Your task to perform on an android device: toggle location history Image 0: 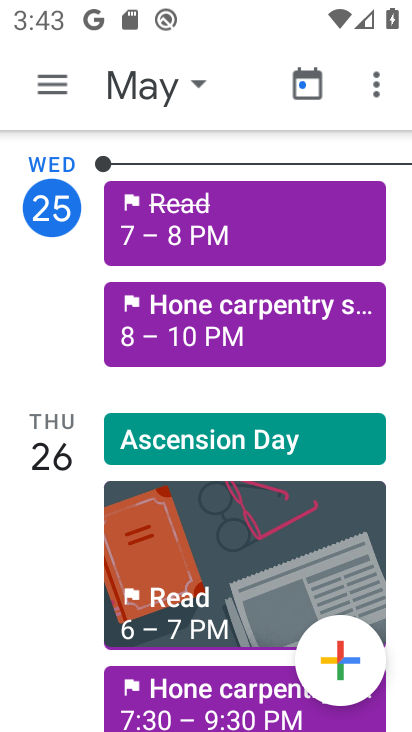
Step 0: press home button
Your task to perform on an android device: toggle location history Image 1: 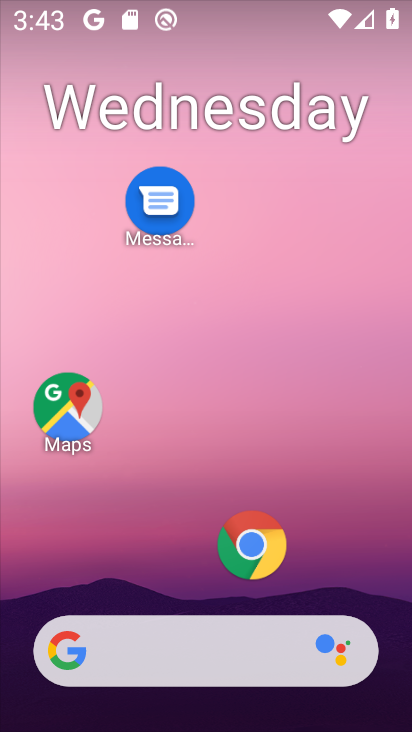
Step 1: drag from (328, 564) to (280, 198)
Your task to perform on an android device: toggle location history Image 2: 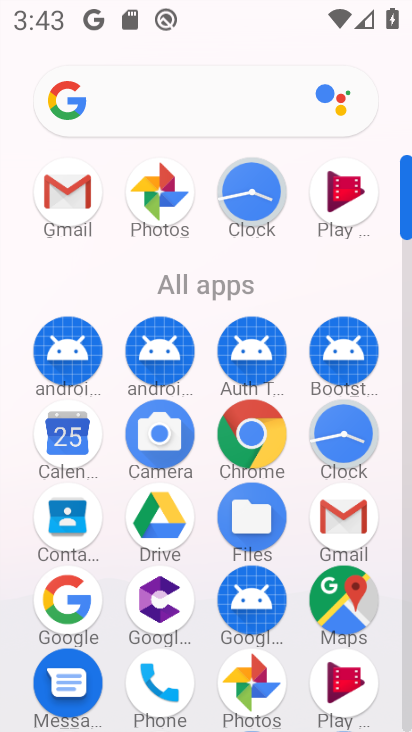
Step 2: drag from (194, 639) to (184, 407)
Your task to perform on an android device: toggle location history Image 3: 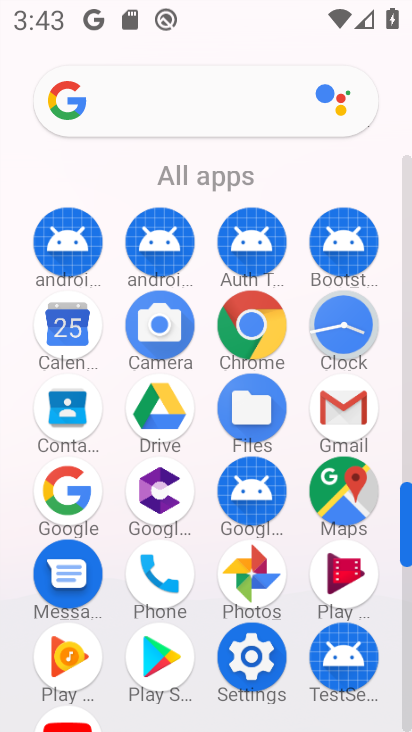
Step 3: click (257, 676)
Your task to perform on an android device: toggle location history Image 4: 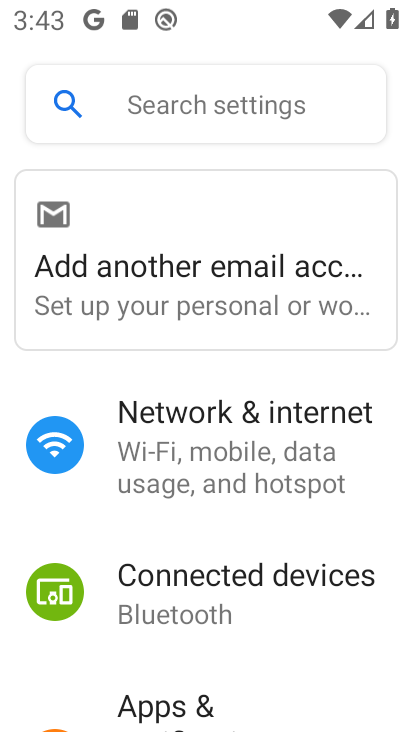
Step 4: drag from (291, 600) to (263, 248)
Your task to perform on an android device: toggle location history Image 5: 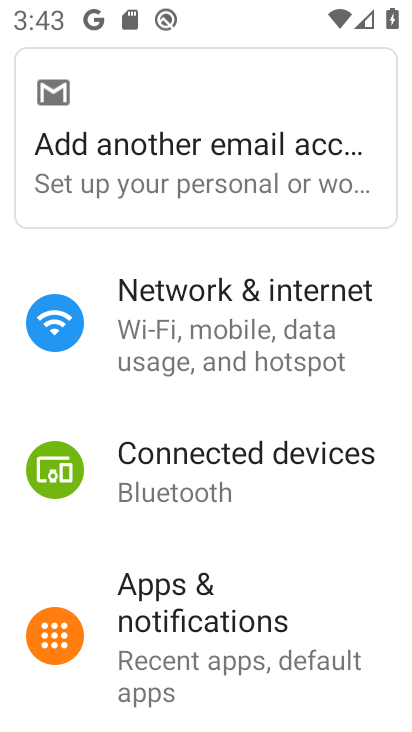
Step 5: drag from (251, 664) to (240, 219)
Your task to perform on an android device: toggle location history Image 6: 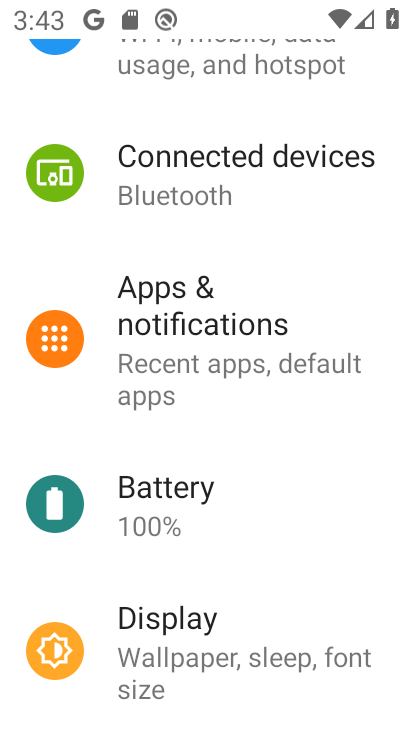
Step 6: drag from (258, 549) to (243, 303)
Your task to perform on an android device: toggle location history Image 7: 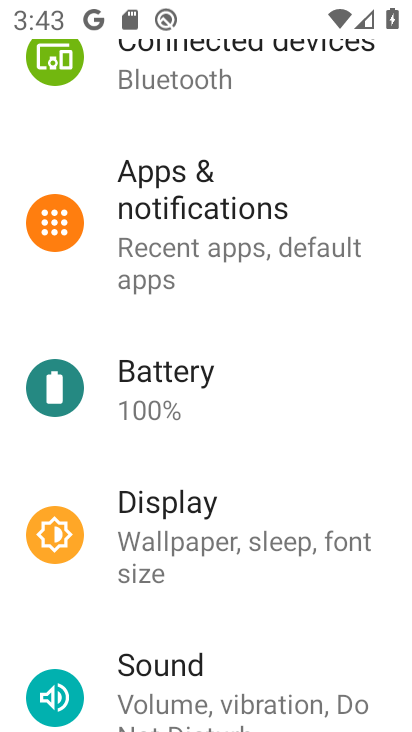
Step 7: drag from (273, 661) to (221, 336)
Your task to perform on an android device: toggle location history Image 8: 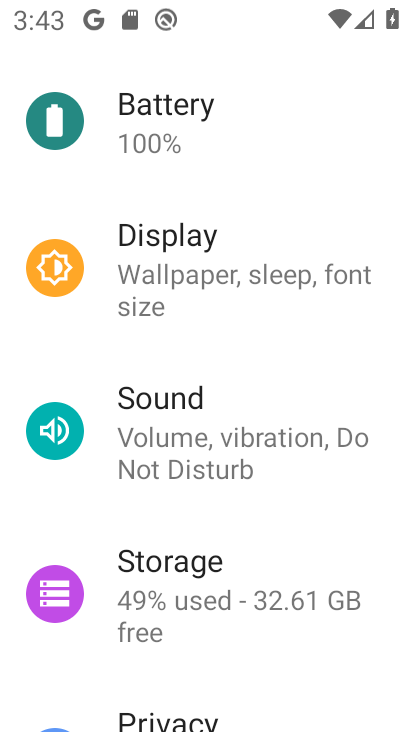
Step 8: drag from (274, 619) to (257, 231)
Your task to perform on an android device: toggle location history Image 9: 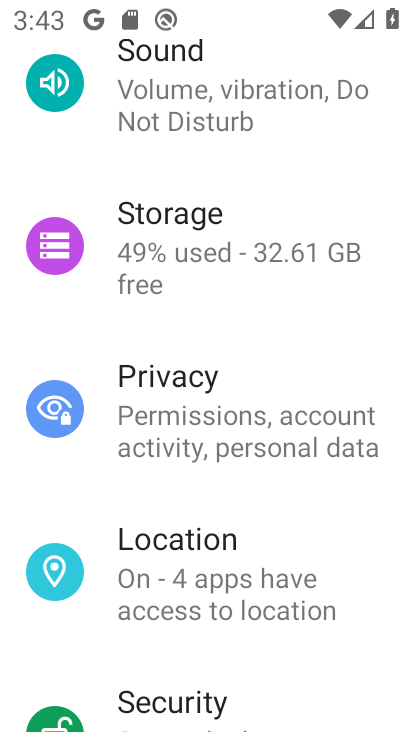
Step 9: click (208, 598)
Your task to perform on an android device: toggle location history Image 10: 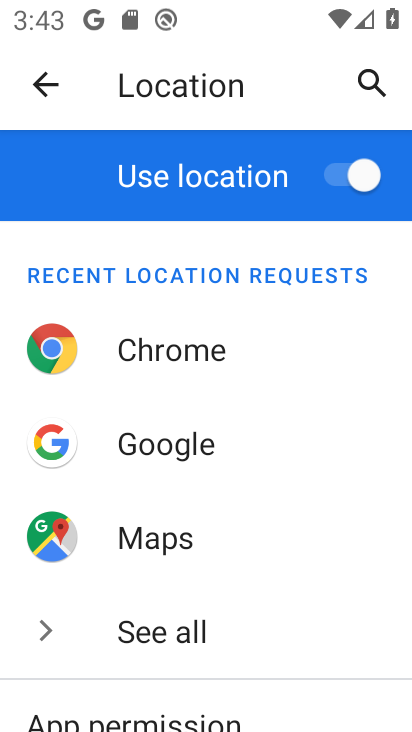
Step 10: drag from (320, 665) to (268, 300)
Your task to perform on an android device: toggle location history Image 11: 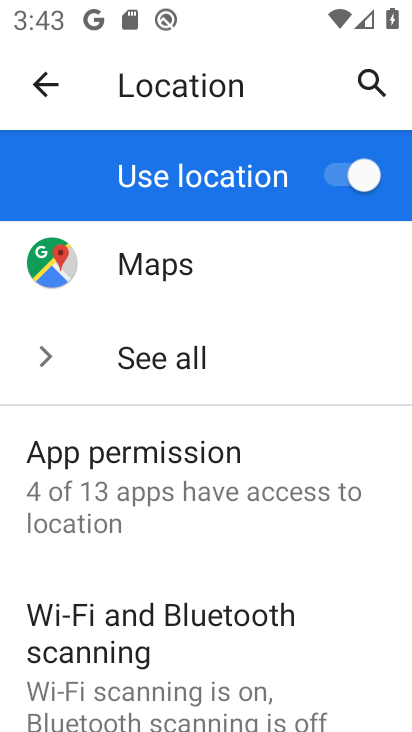
Step 11: drag from (320, 615) to (282, 317)
Your task to perform on an android device: toggle location history Image 12: 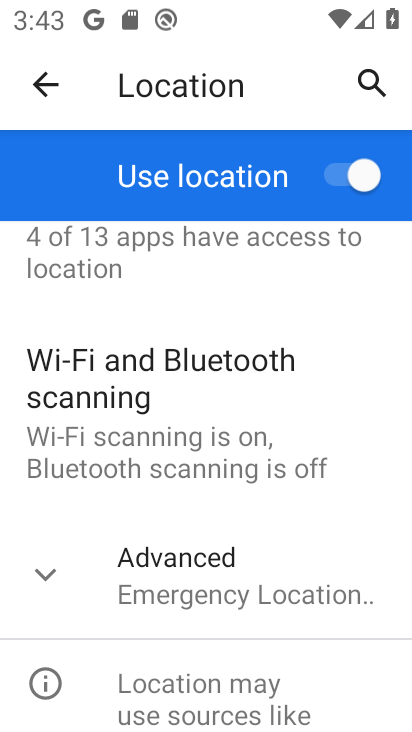
Step 12: click (245, 573)
Your task to perform on an android device: toggle location history Image 13: 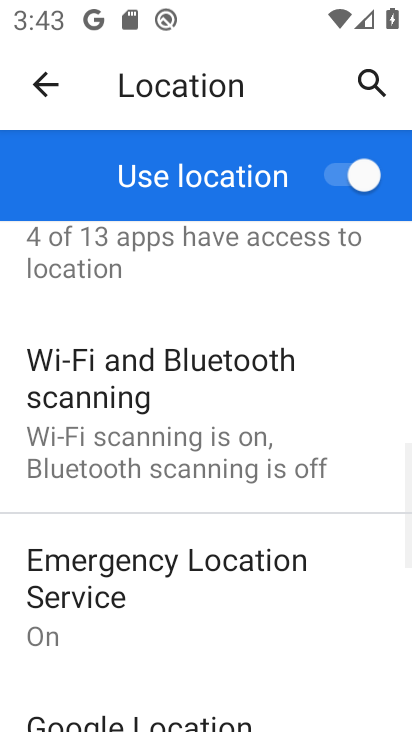
Step 13: drag from (295, 639) to (298, 459)
Your task to perform on an android device: toggle location history Image 14: 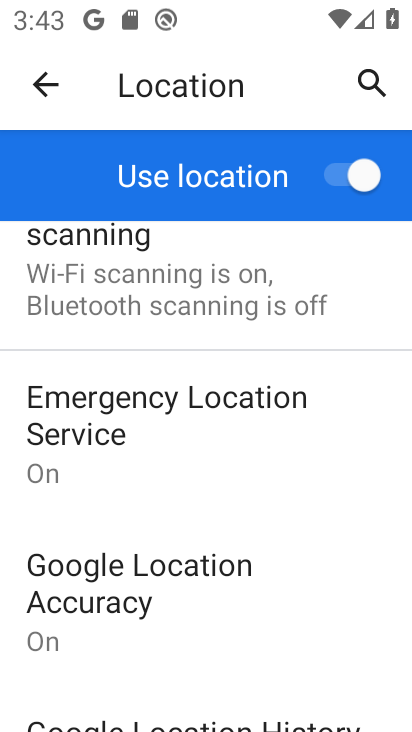
Step 14: drag from (248, 666) to (253, 351)
Your task to perform on an android device: toggle location history Image 15: 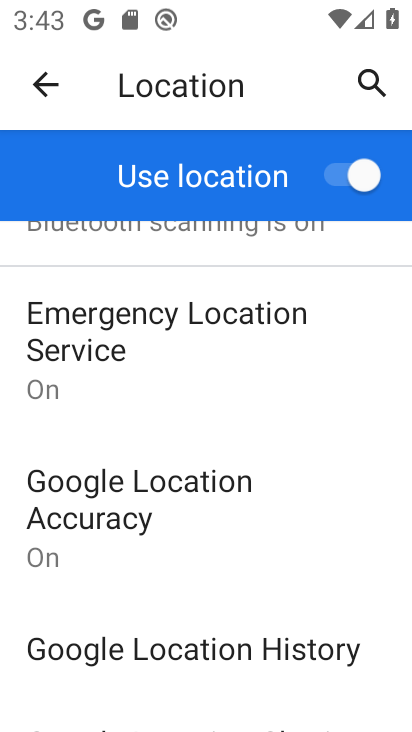
Step 15: click (262, 640)
Your task to perform on an android device: toggle location history Image 16: 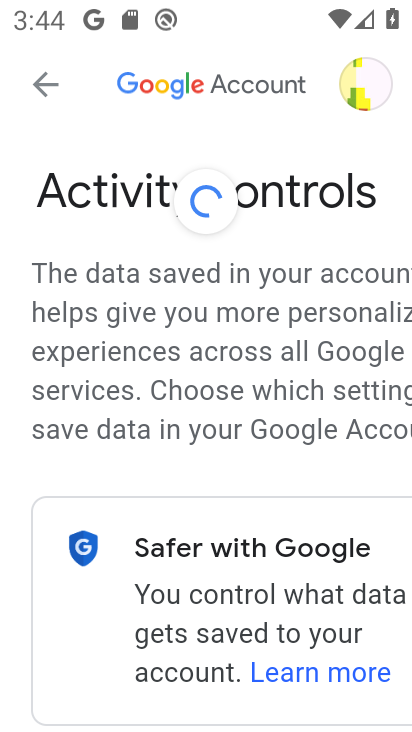
Step 16: drag from (296, 639) to (291, 224)
Your task to perform on an android device: toggle location history Image 17: 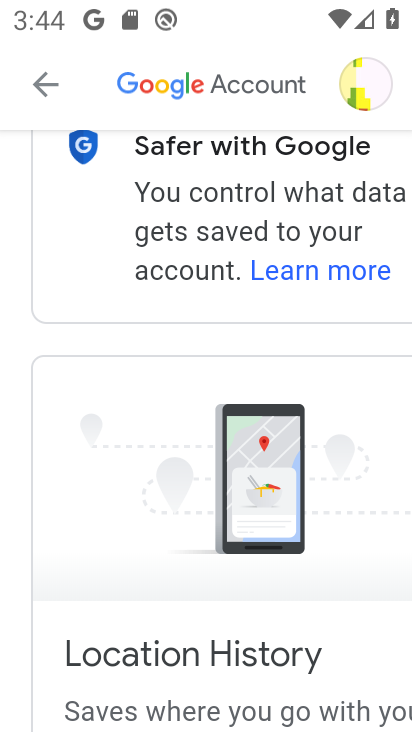
Step 17: drag from (324, 620) to (305, 299)
Your task to perform on an android device: toggle location history Image 18: 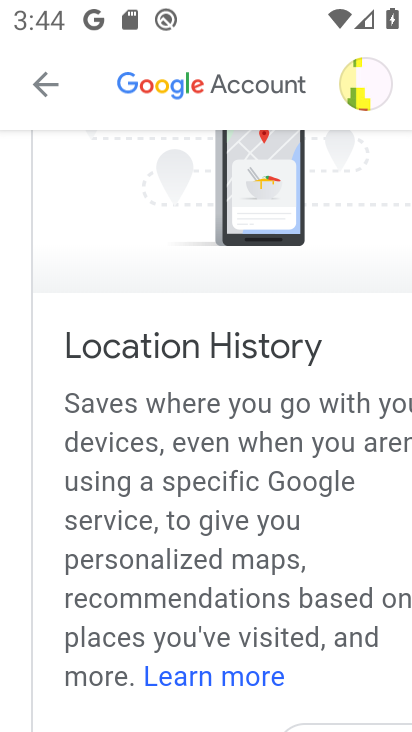
Step 18: drag from (294, 658) to (284, 293)
Your task to perform on an android device: toggle location history Image 19: 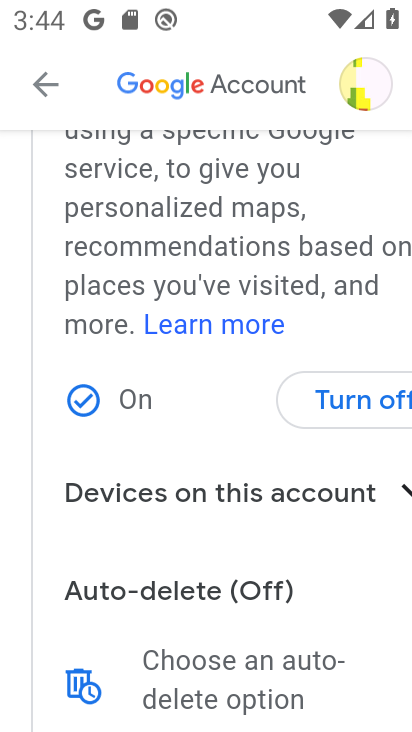
Step 19: click (351, 389)
Your task to perform on an android device: toggle location history Image 20: 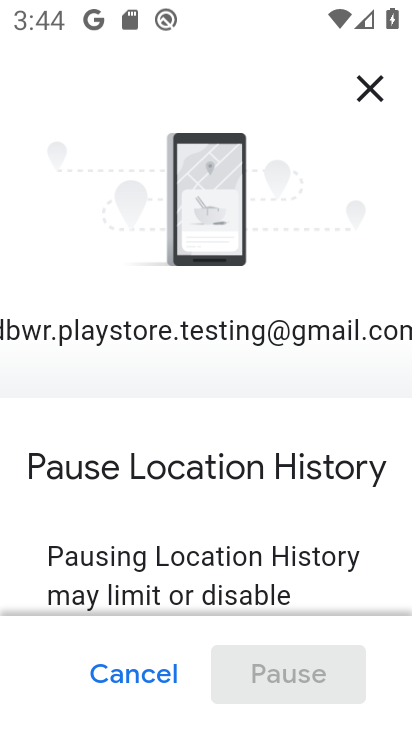
Step 20: drag from (303, 563) to (280, 231)
Your task to perform on an android device: toggle location history Image 21: 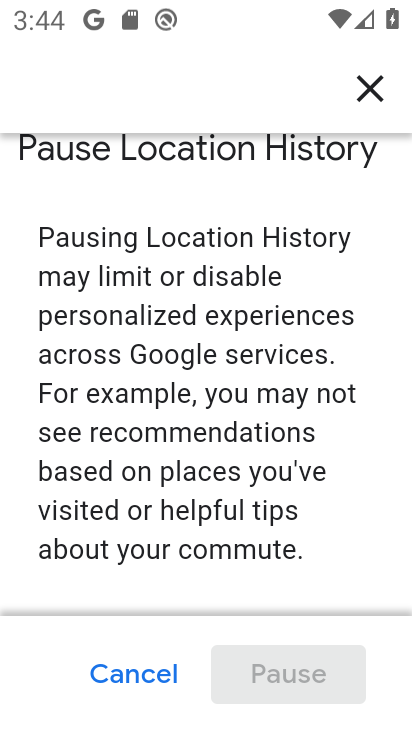
Step 21: drag from (291, 522) to (270, 104)
Your task to perform on an android device: toggle location history Image 22: 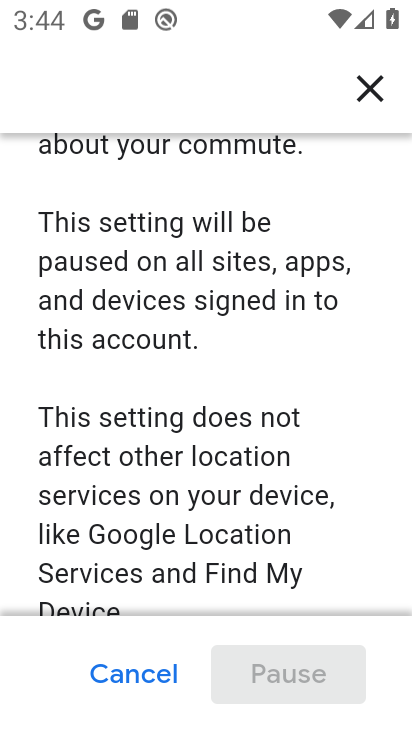
Step 22: drag from (246, 549) to (238, 186)
Your task to perform on an android device: toggle location history Image 23: 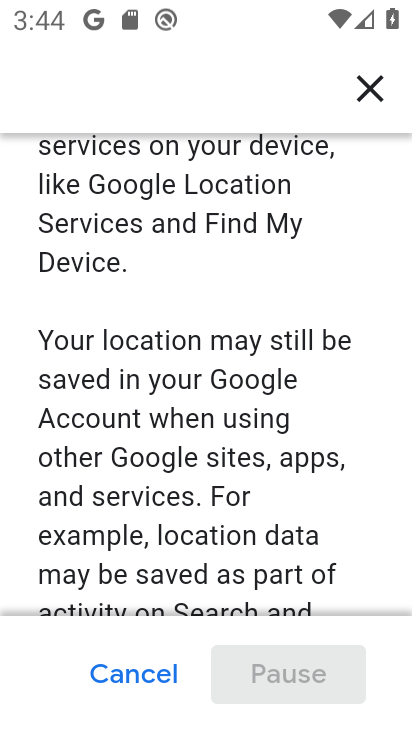
Step 23: drag from (278, 562) to (278, 218)
Your task to perform on an android device: toggle location history Image 24: 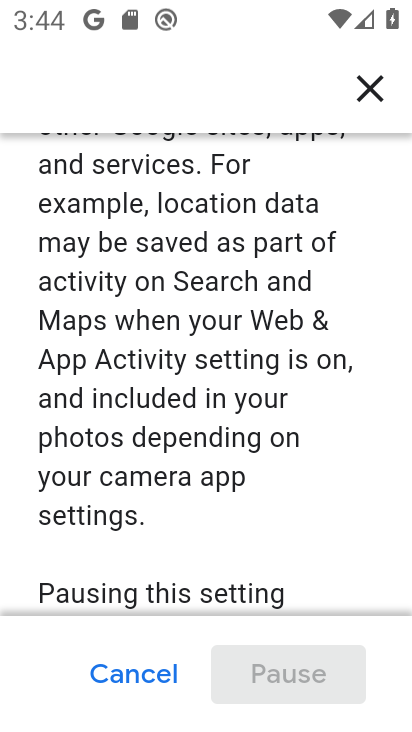
Step 24: drag from (325, 649) to (259, 378)
Your task to perform on an android device: toggle location history Image 25: 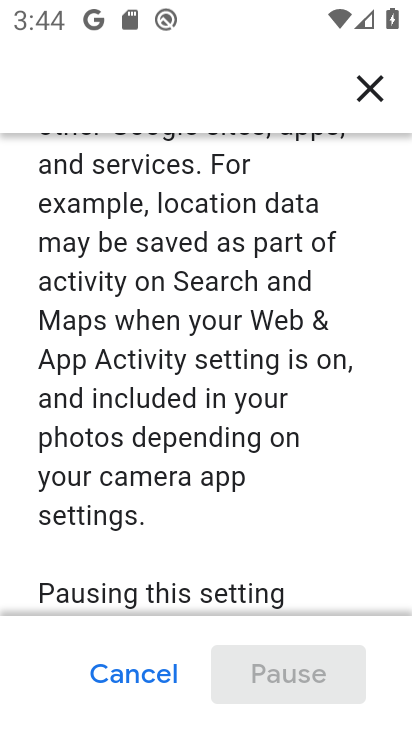
Step 25: drag from (275, 590) to (251, 283)
Your task to perform on an android device: toggle location history Image 26: 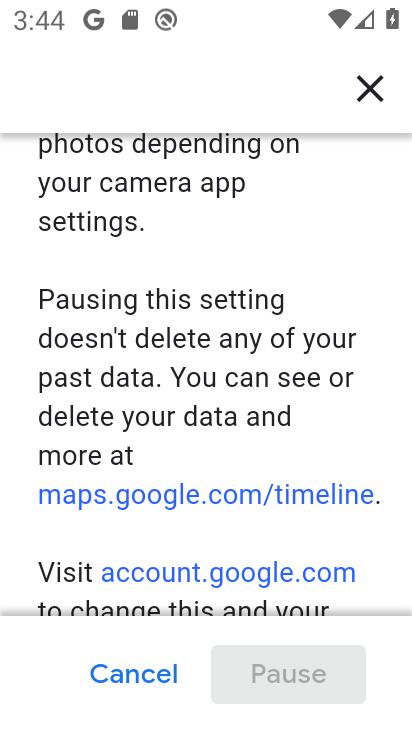
Step 26: drag from (338, 566) to (348, 271)
Your task to perform on an android device: toggle location history Image 27: 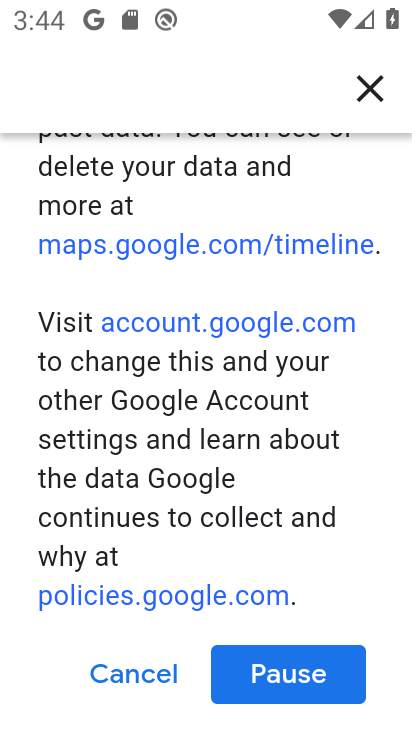
Step 27: click (320, 679)
Your task to perform on an android device: toggle location history Image 28: 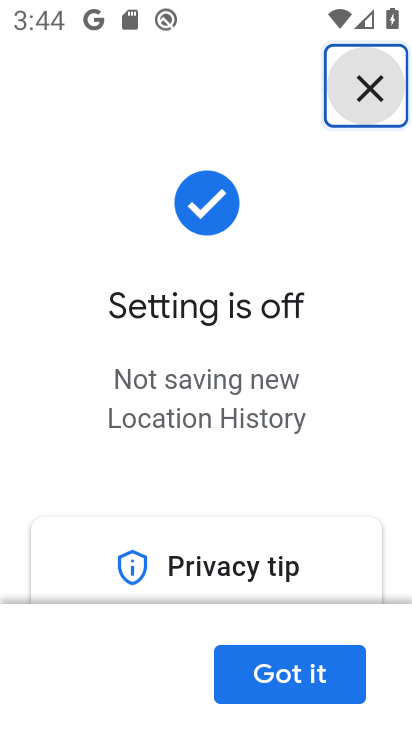
Step 28: click (320, 679)
Your task to perform on an android device: toggle location history Image 29: 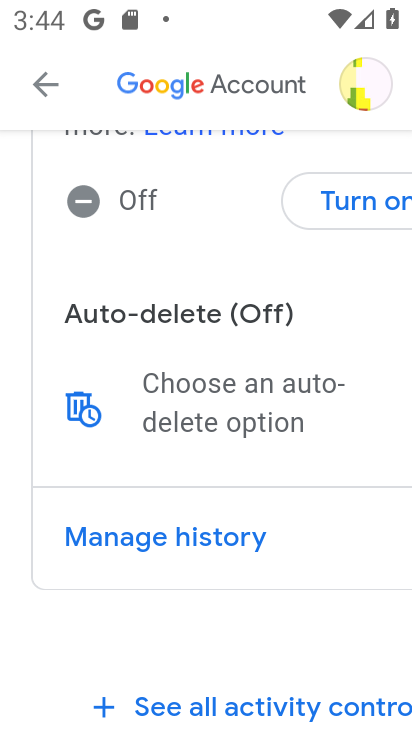
Step 29: task complete